Your task to perform on an android device: Search for pizza restaurants on Maps Image 0: 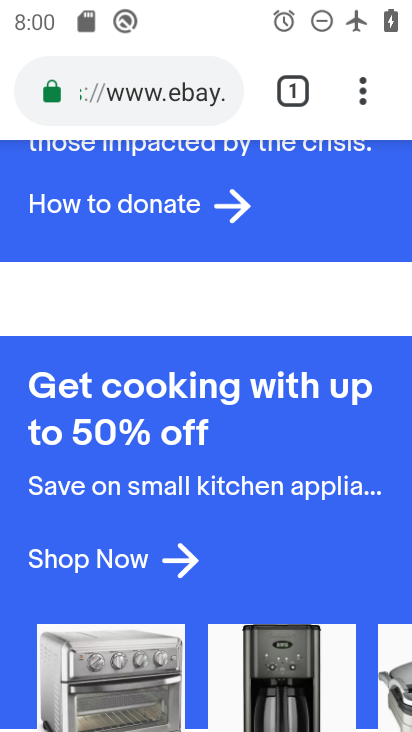
Step 0: press home button
Your task to perform on an android device: Search for pizza restaurants on Maps Image 1: 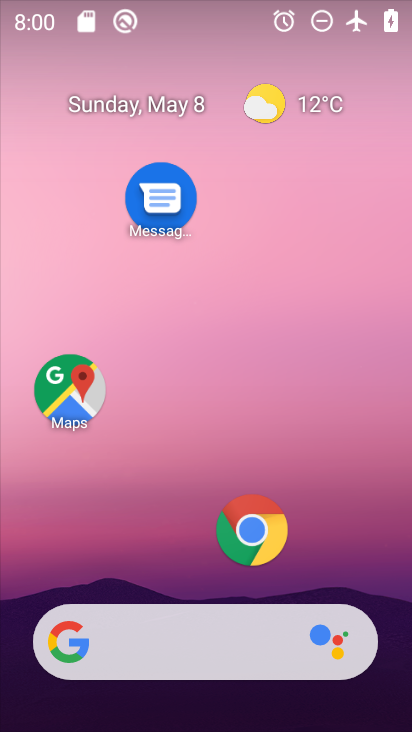
Step 1: click (72, 387)
Your task to perform on an android device: Search for pizza restaurants on Maps Image 2: 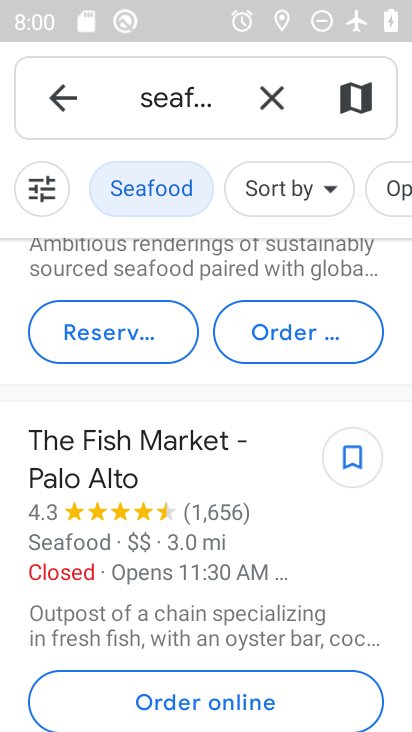
Step 2: click (267, 103)
Your task to perform on an android device: Search for pizza restaurants on Maps Image 3: 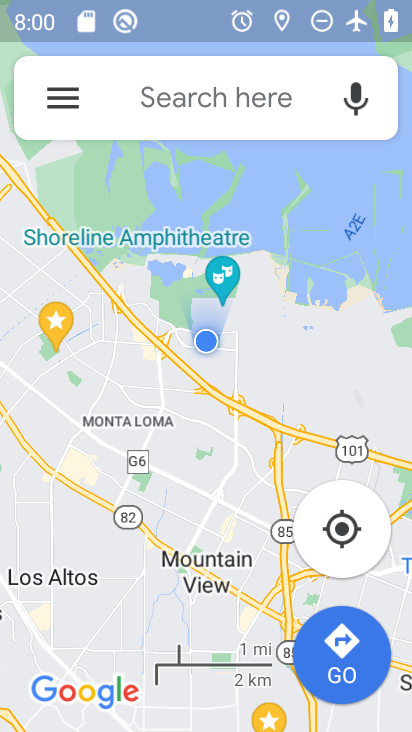
Step 3: click (163, 104)
Your task to perform on an android device: Search for pizza restaurants on Maps Image 4: 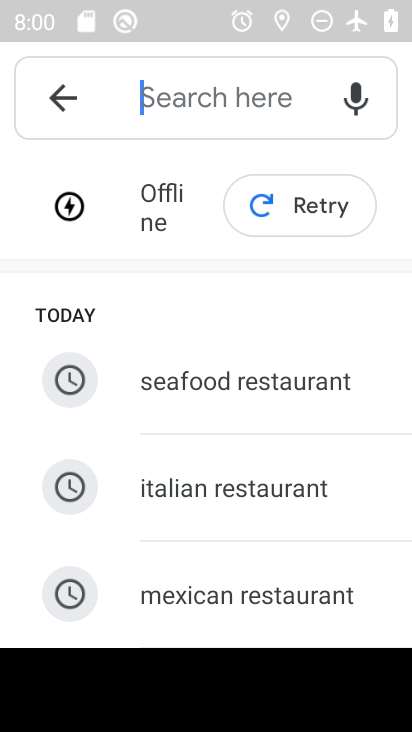
Step 4: drag from (190, 546) to (177, 184)
Your task to perform on an android device: Search for pizza restaurants on Maps Image 5: 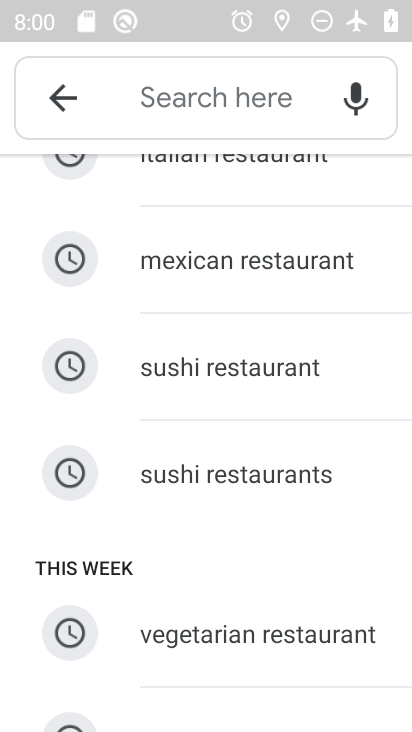
Step 5: drag from (196, 623) to (204, 202)
Your task to perform on an android device: Search for pizza restaurants on Maps Image 6: 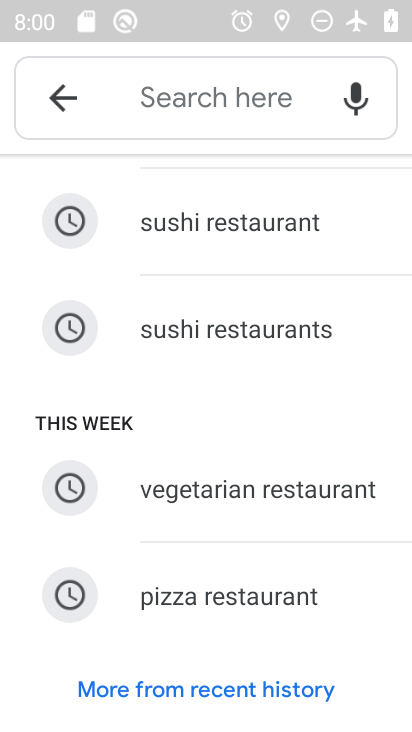
Step 6: click (197, 584)
Your task to perform on an android device: Search for pizza restaurants on Maps Image 7: 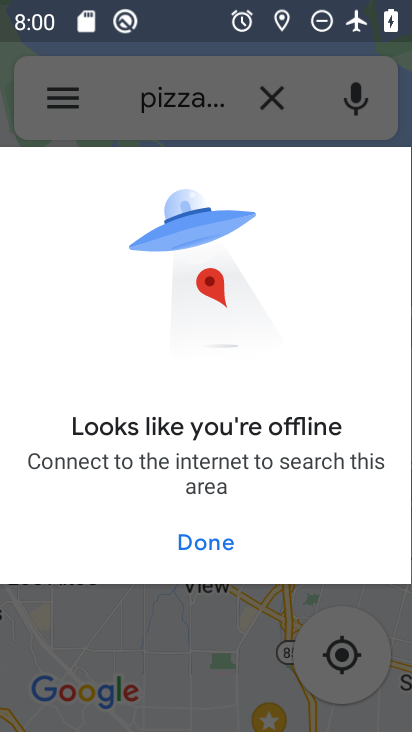
Step 7: click (203, 547)
Your task to perform on an android device: Search for pizza restaurants on Maps Image 8: 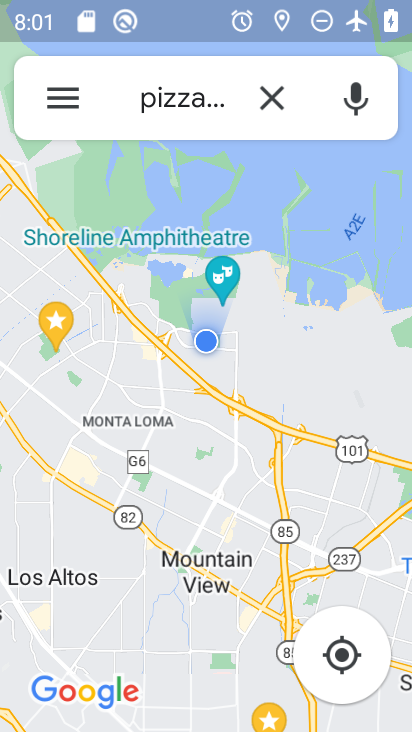
Step 8: task complete